Your task to perform on an android device: What's the weather going to be tomorrow? Image 0: 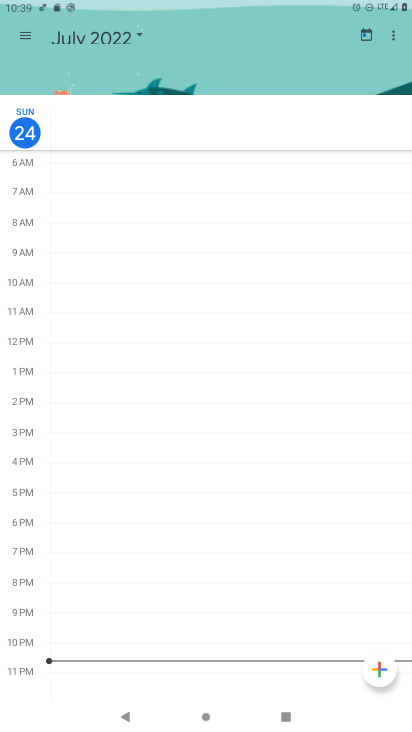
Step 0: press home button
Your task to perform on an android device: What's the weather going to be tomorrow? Image 1: 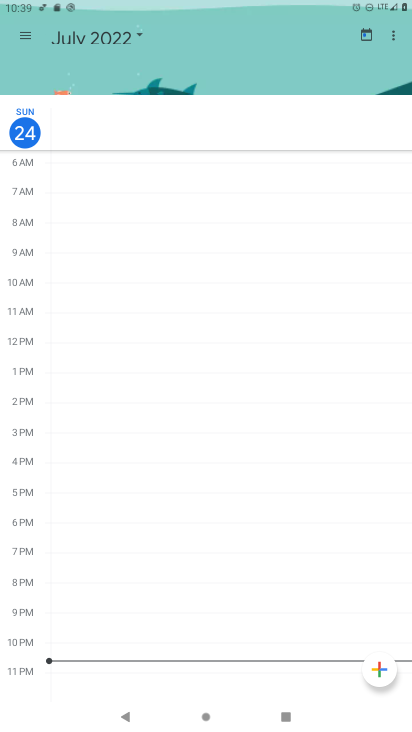
Step 1: drag from (215, 269) to (171, 8)
Your task to perform on an android device: What's the weather going to be tomorrow? Image 2: 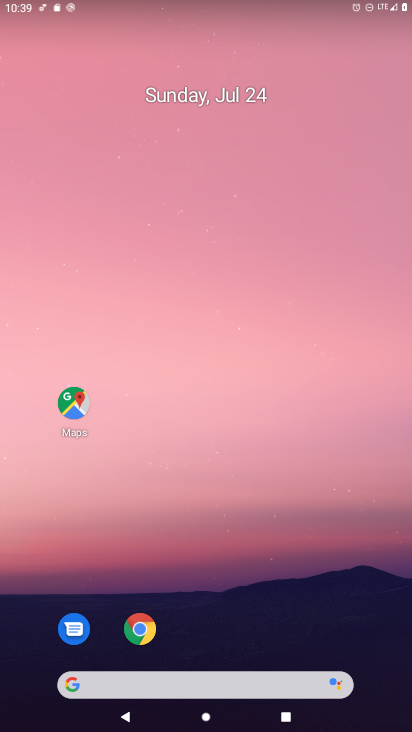
Step 2: drag from (342, 631) to (153, 26)
Your task to perform on an android device: What's the weather going to be tomorrow? Image 3: 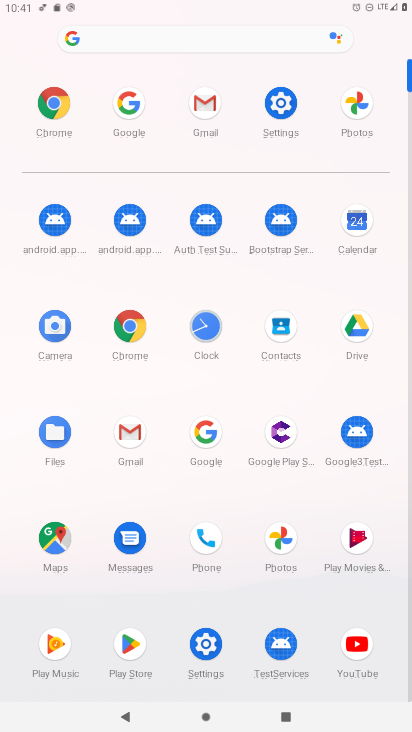
Step 3: click (211, 431)
Your task to perform on an android device: What's the weather going to be tomorrow? Image 4: 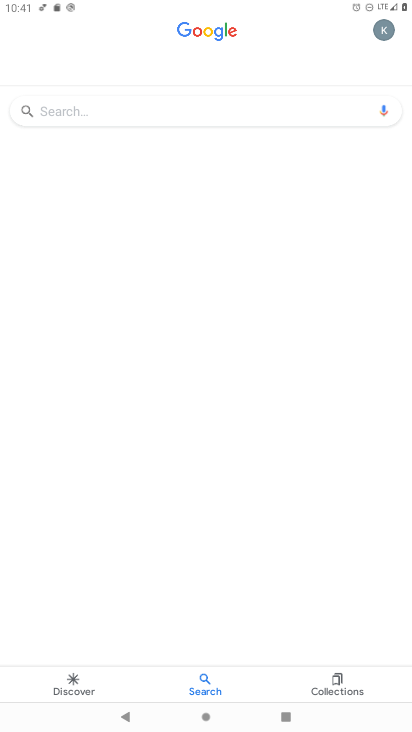
Step 4: click (66, 113)
Your task to perform on an android device: What's the weather going to be tomorrow? Image 5: 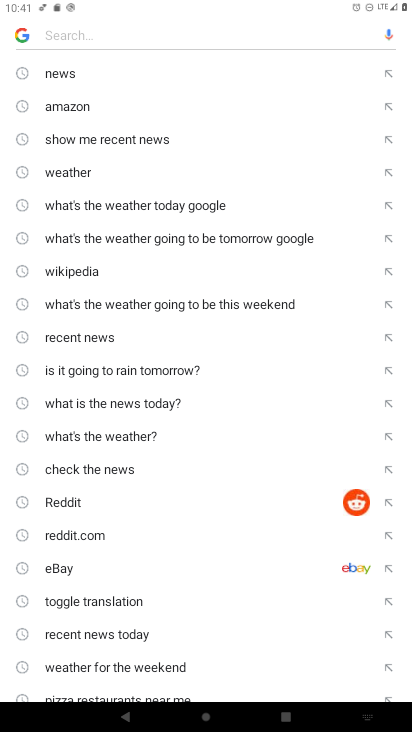
Step 5: click (214, 248)
Your task to perform on an android device: What's the weather going to be tomorrow? Image 6: 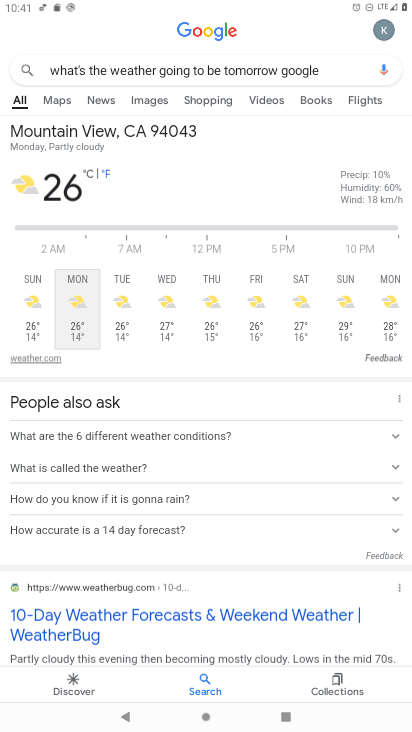
Step 6: task complete